Your task to perform on an android device: toggle javascript in the chrome app Image 0: 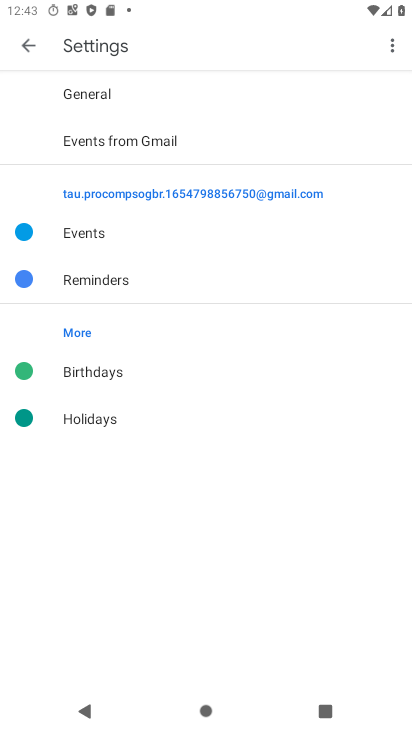
Step 0: press home button
Your task to perform on an android device: toggle javascript in the chrome app Image 1: 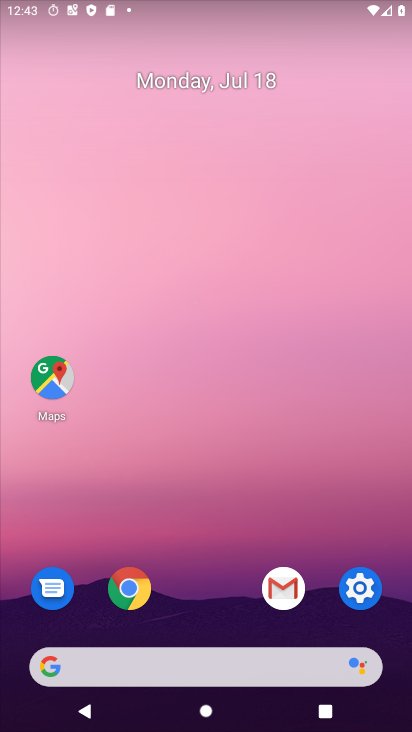
Step 1: click (123, 585)
Your task to perform on an android device: toggle javascript in the chrome app Image 2: 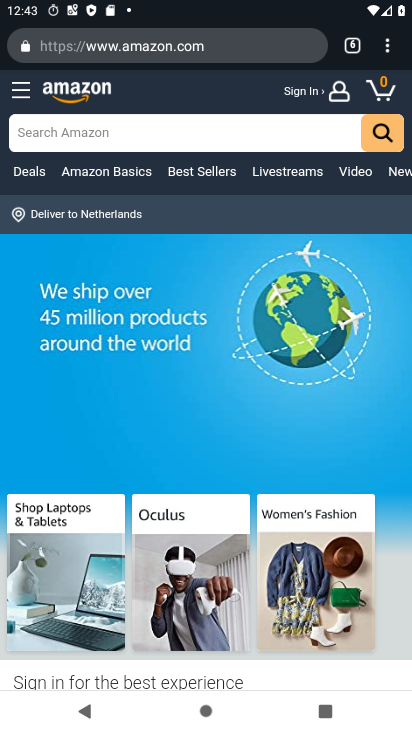
Step 2: click (389, 52)
Your task to perform on an android device: toggle javascript in the chrome app Image 3: 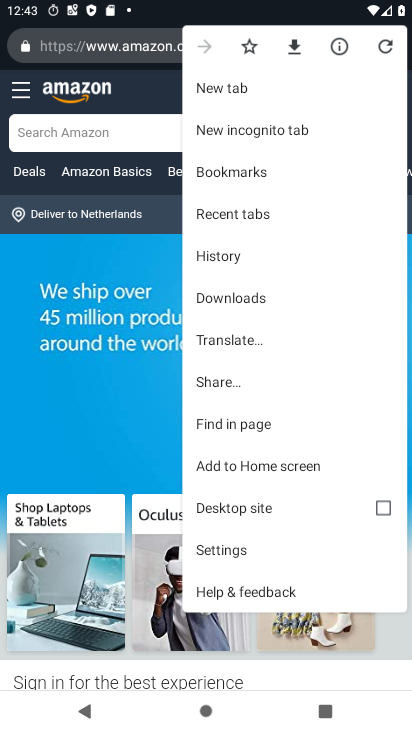
Step 3: click (227, 547)
Your task to perform on an android device: toggle javascript in the chrome app Image 4: 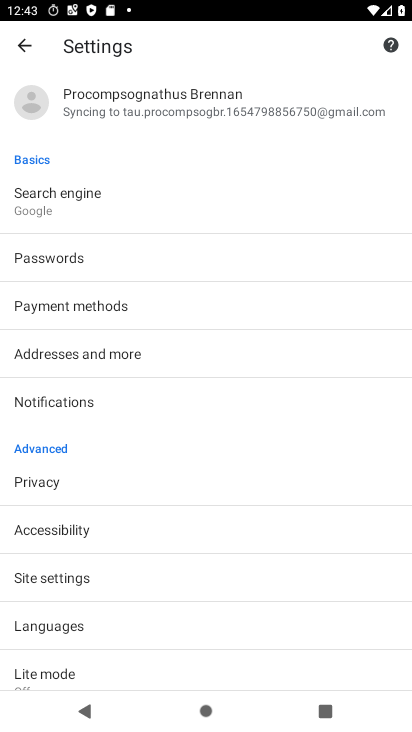
Step 4: click (50, 571)
Your task to perform on an android device: toggle javascript in the chrome app Image 5: 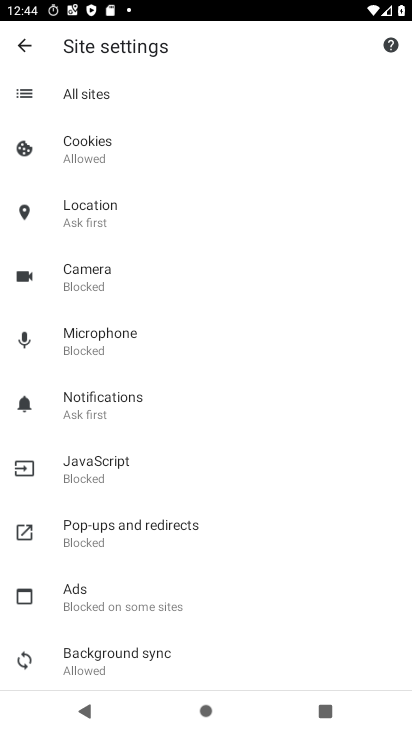
Step 5: click (81, 452)
Your task to perform on an android device: toggle javascript in the chrome app Image 6: 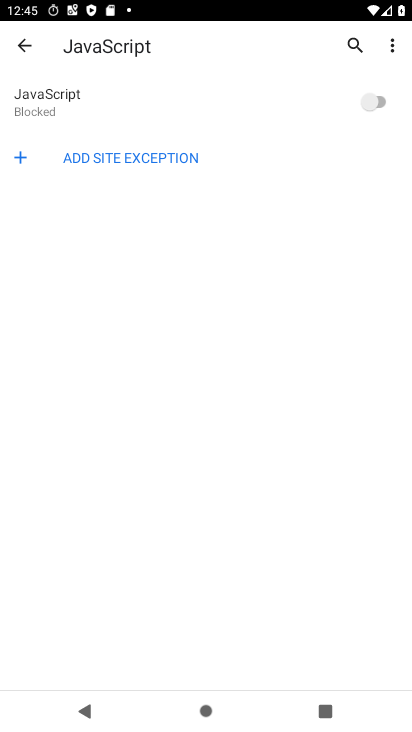
Step 6: task complete